Your task to perform on an android device: turn off data saver in the chrome app Image 0: 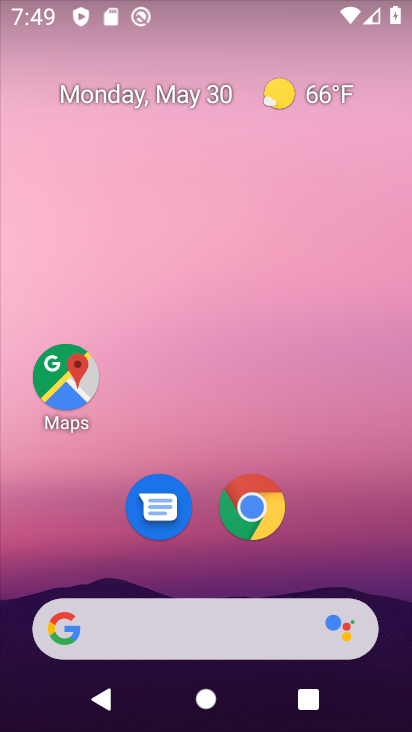
Step 0: click (256, 509)
Your task to perform on an android device: turn off data saver in the chrome app Image 1: 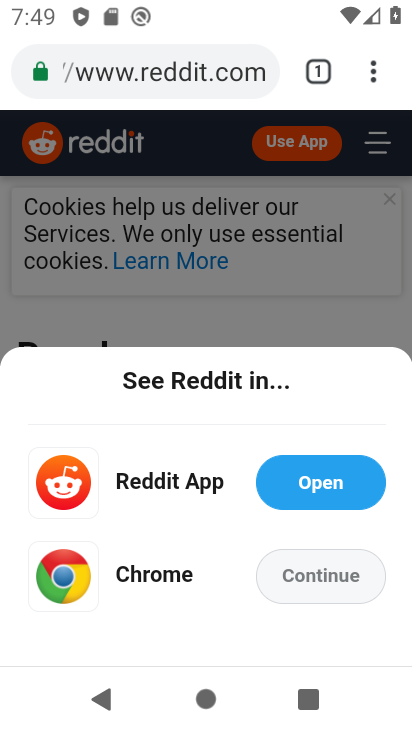
Step 1: click (373, 68)
Your task to perform on an android device: turn off data saver in the chrome app Image 2: 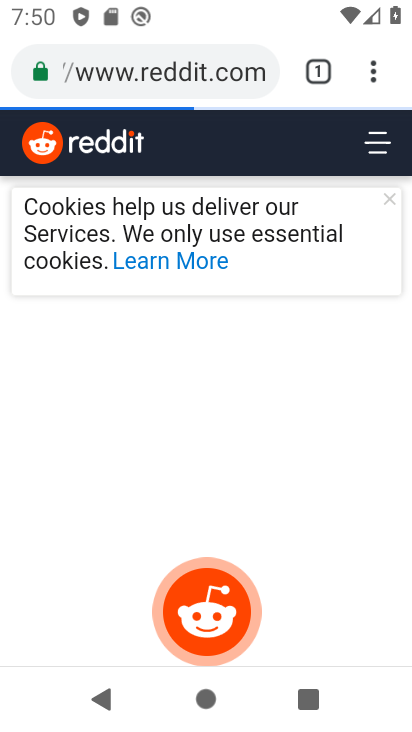
Step 2: drag from (375, 61) to (174, 511)
Your task to perform on an android device: turn off data saver in the chrome app Image 3: 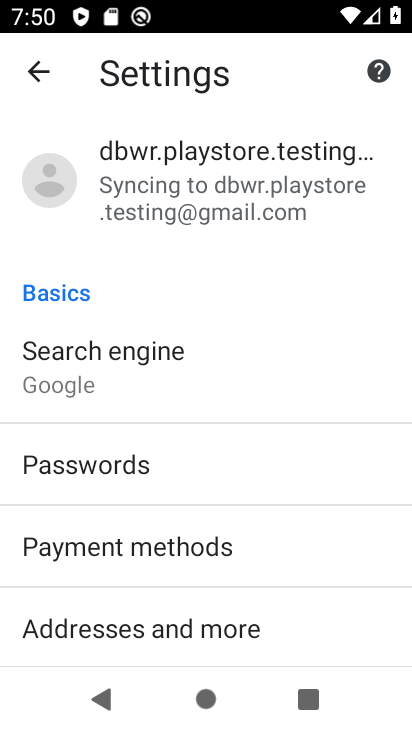
Step 3: drag from (207, 472) to (255, 140)
Your task to perform on an android device: turn off data saver in the chrome app Image 4: 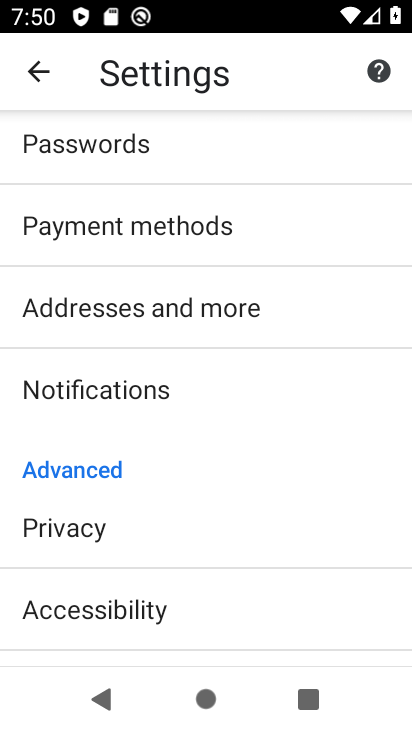
Step 4: drag from (294, 504) to (311, 144)
Your task to perform on an android device: turn off data saver in the chrome app Image 5: 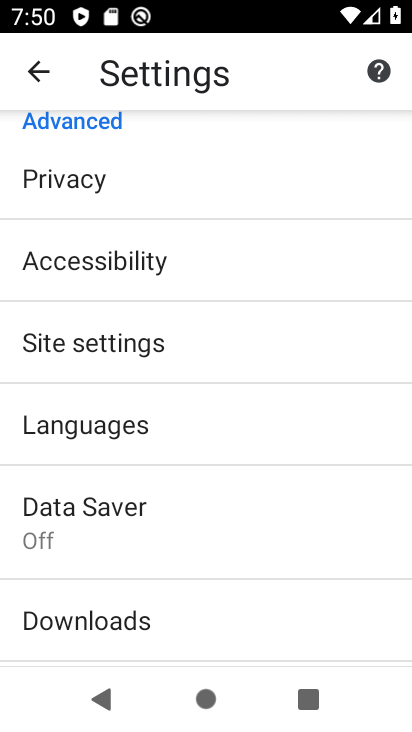
Step 5: click (119, 511)
Your task to perform on an android device: turn off data saver in the chrome app Image 6: 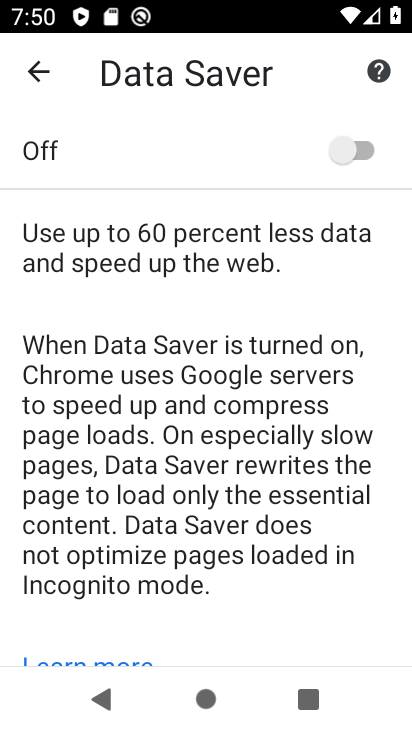
Step 6: task complete